Your task to perform on an android device: see tabs open on other devices in the chrome app Image 0: 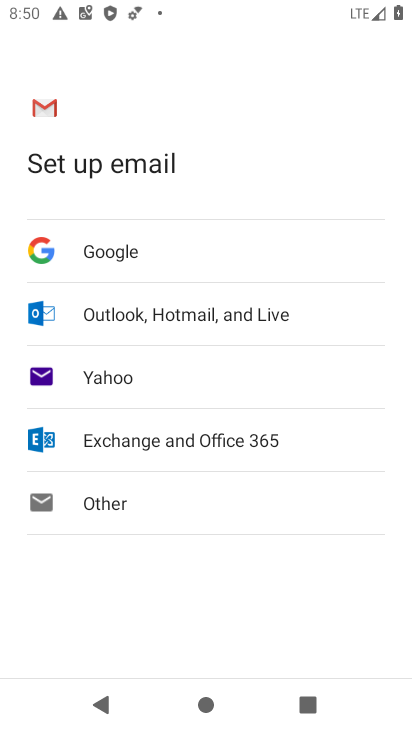
Step 0: press home button
Your task to perform on an android device: see tabs open on other devices in the chrome app Image 1: 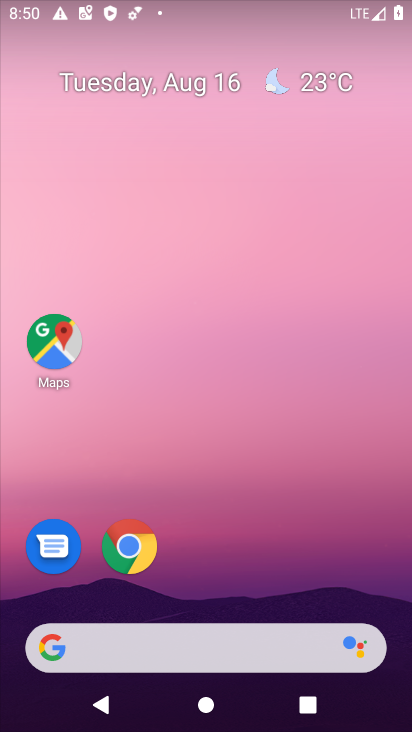
Step 1: click (132, 547)
Your task to perform on an android device: see tabs open on other devices in the chrome app Image 2: 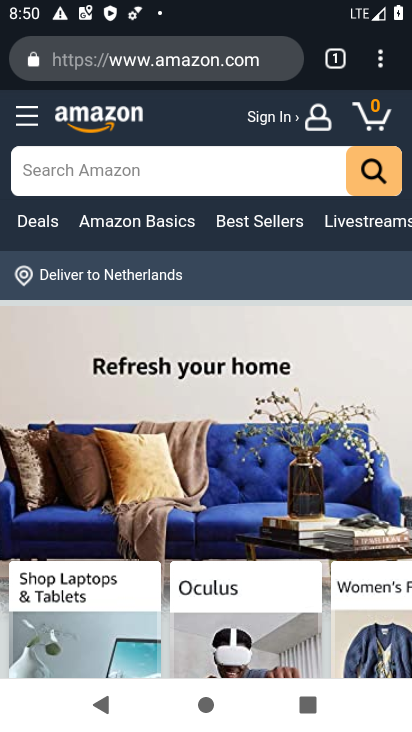
Step 2: press back button
Your task to perform on an android device: see tabs open on other devices in the chrome app Image 3: 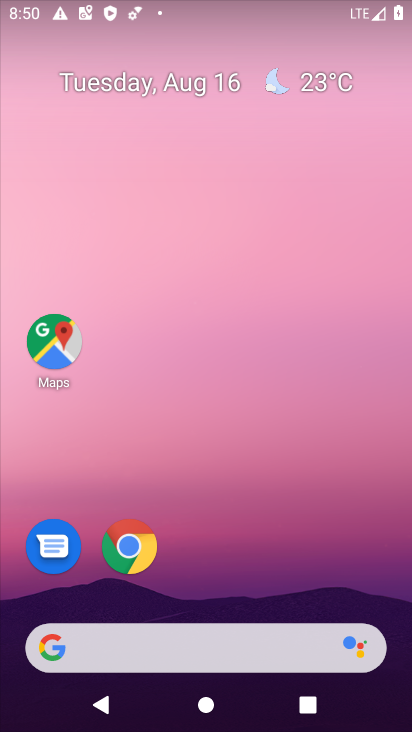
Step 3: click (128, 545)
Your task to perform on an android device: see tabs open on other devices in the chrome app Image 4: 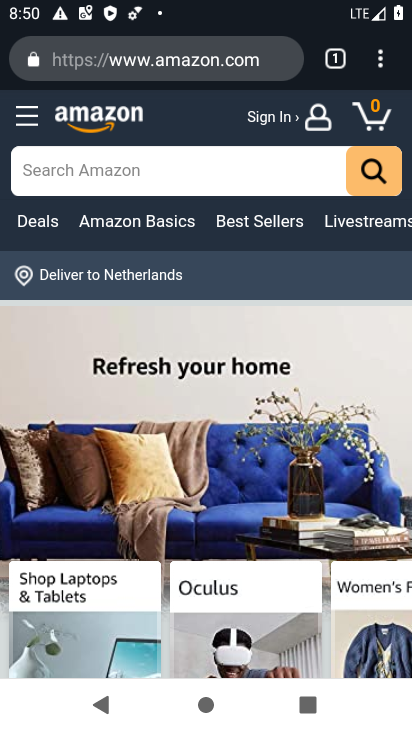
Step 4: press back button
Your task to perform on an android device: see tabs open on other devices in the chrome app Image 5: 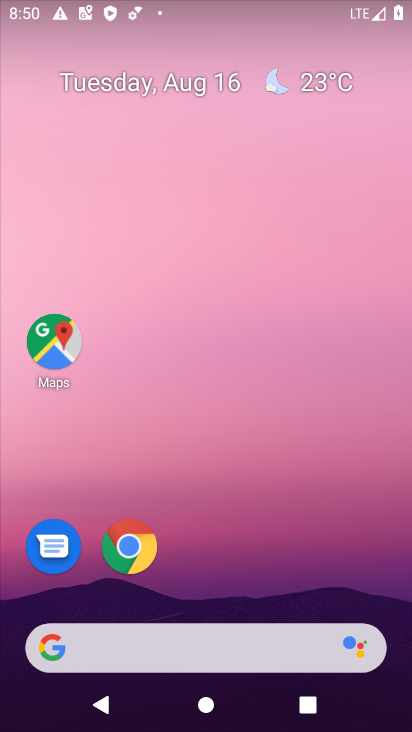
Step 5: click (129, 553)
Your task to perform on an android device: see tabs open on other devices in the chrome app Image 6: 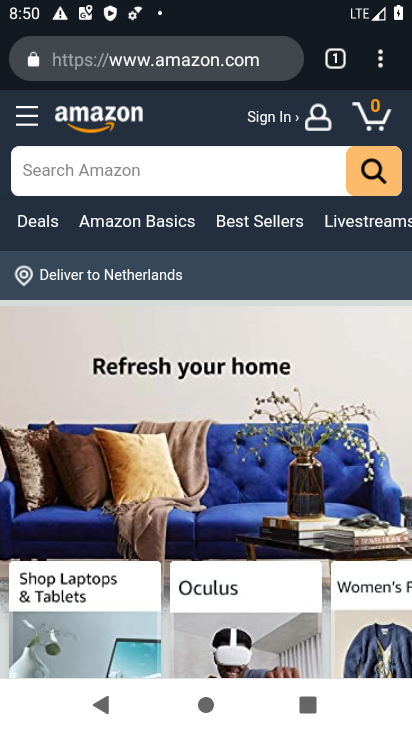
Step 6: click (381, 63)
Your task to perform on an android device: see tabs open on other devices in the chrome app Image 7: 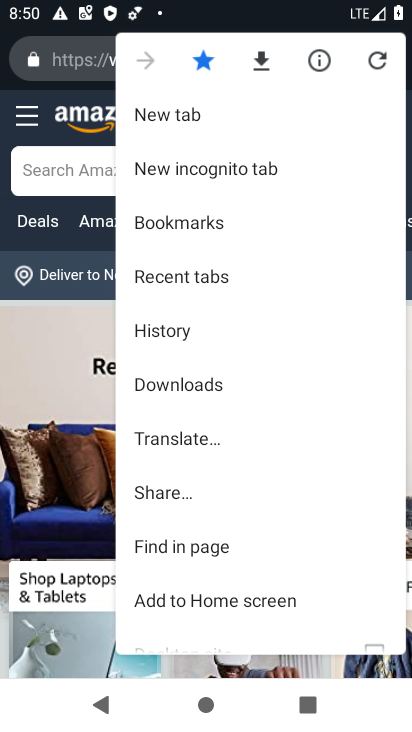
Step 7: click (221, 279)
Your task to perform on an android device: see tabs open on other devices in the chrome app Image 8: 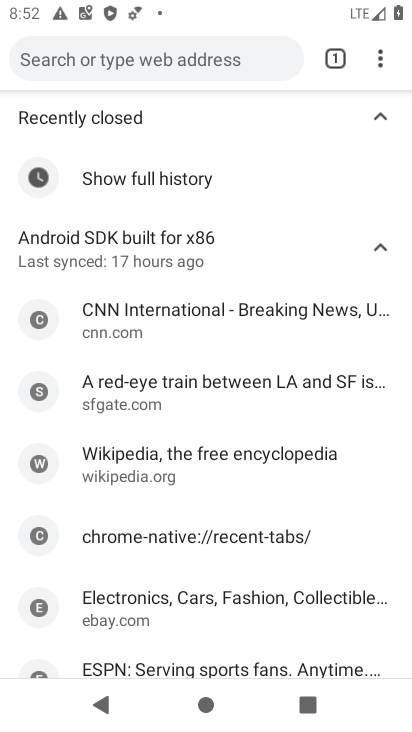
Step 8: task complete